Your task to perform on an android device: toggle pop-ups in chrome Image 0: 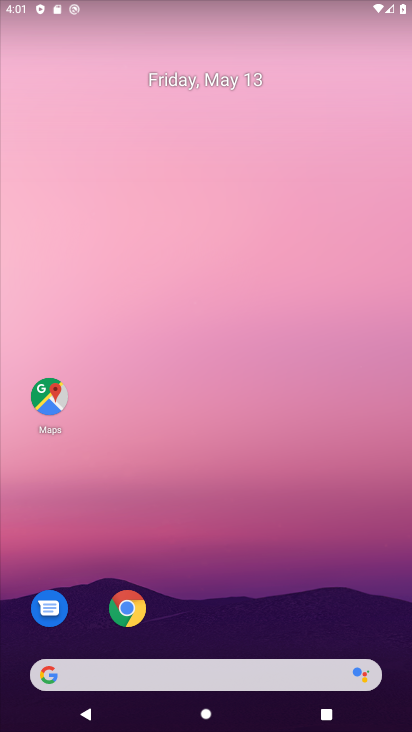
Step 0: drag from (347, 707) to (364, 125)
Your task to perform on an android device: toggle pop-ups in chrome Image 1: 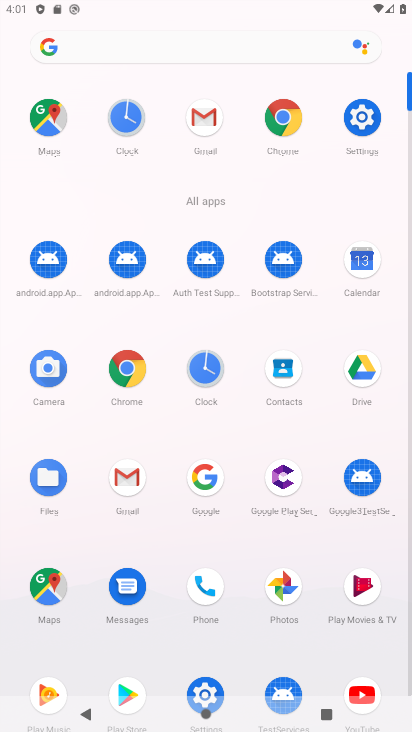
Step 1: click (130, 379)
Your task to perform on an android device: toggle pop-ups in chrome Image 2: 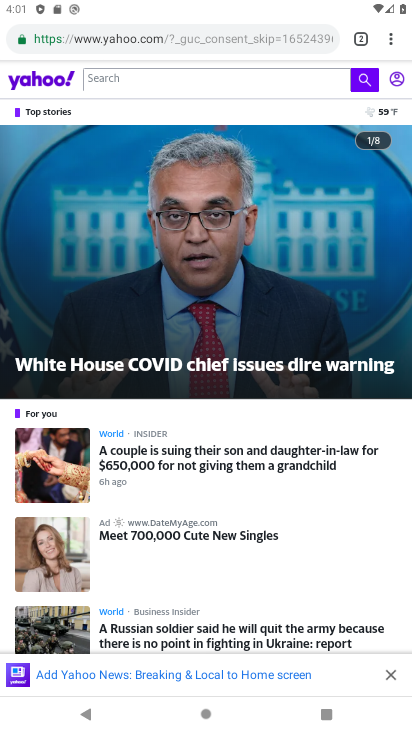
Step 2: click (389, 32)
Your task to perform on an android device: toggle pop-ups in chrome Image 3: 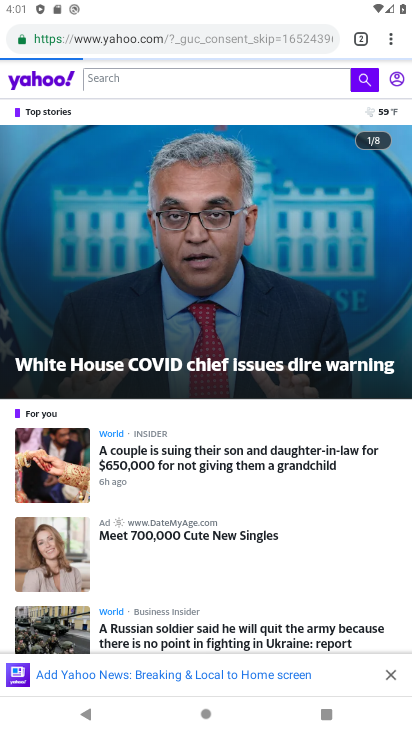
Step 3: click (389, 32)
Your task to perform on an android device: toggle pop-ups in chrome Image 4: 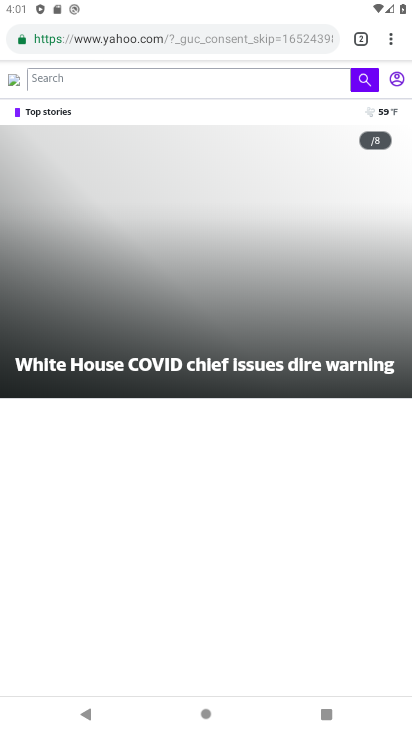
Step 4: drag from (387, 41) to (261, 471)
Your task to perform on an android device: toggle pop-ups in chrome Image 5: 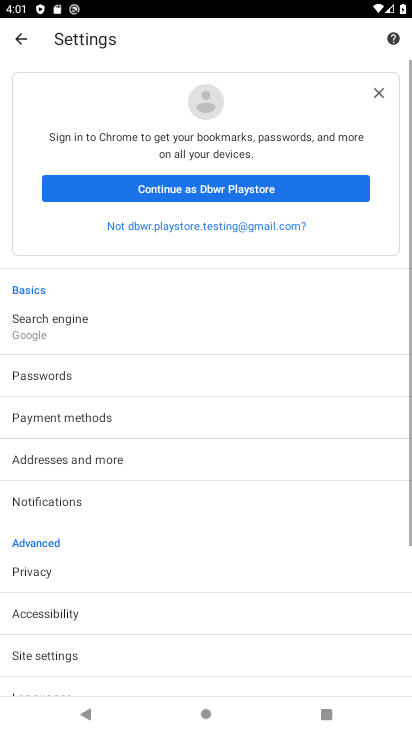
Step 5: drag from (109, 619) to (128, 238)
Your task to perform on an android device: toggle pop-ups in chrome Image 6: 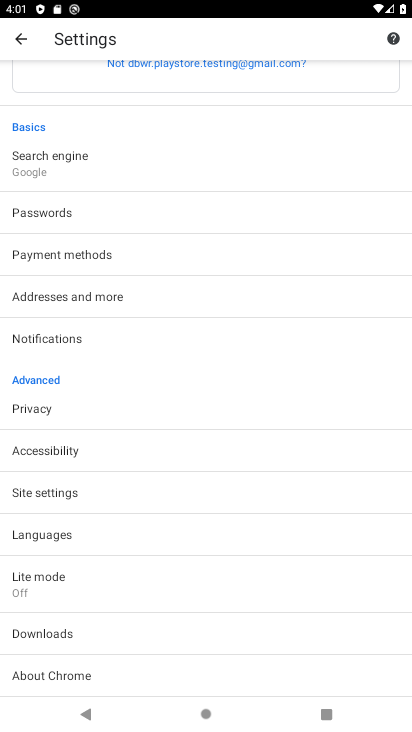
Step 6: click (74, 489)
Your task to perform on an android device: toggle pop-ups in chrome Image 7: 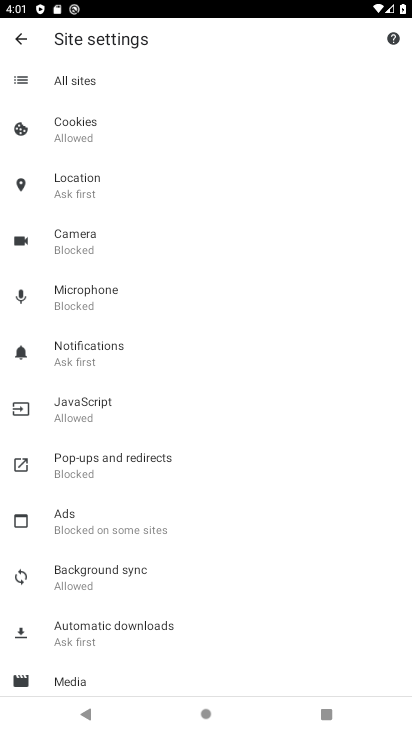
Step 7: click (112, 454)
Your task to perform on an android device: toggle pop-ups in chrome Image 8: 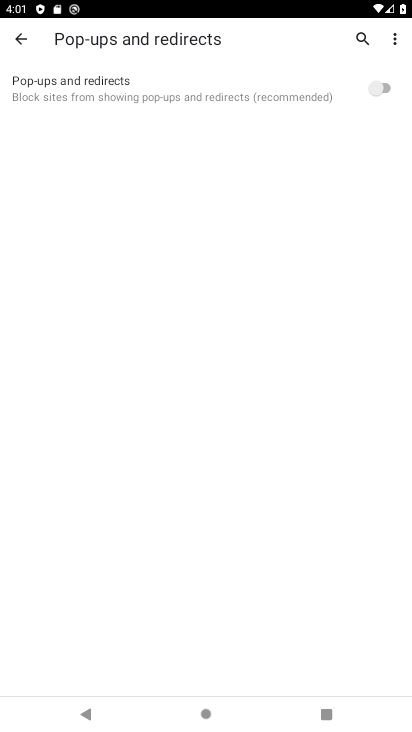
Step 8: click (382, 89)
Your task to perform on an android device: toggle pop-ups in chrome Image 9: 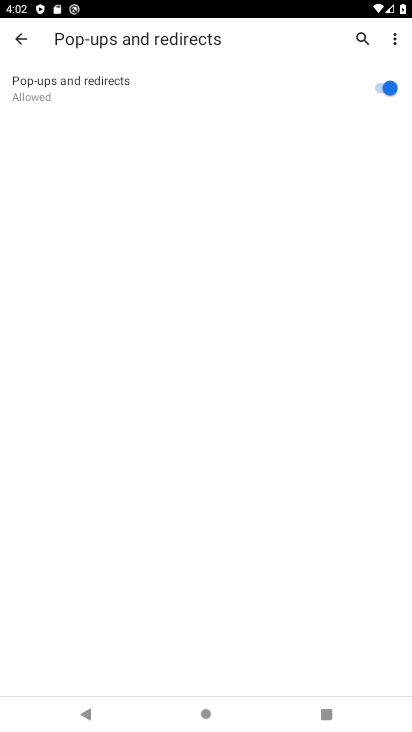
Step 9: task complete